Your task to perform on an android device: See recent photos Image 0: 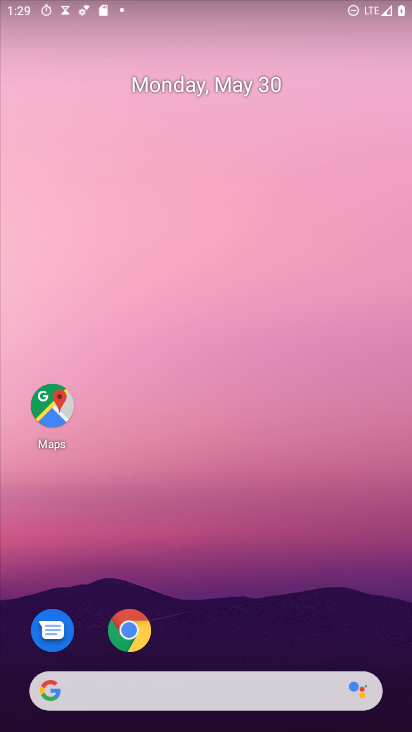
Step 0: drag from (262, 702) to (213, 167)
Your task to perform on an android device: See recent photos Image 1: 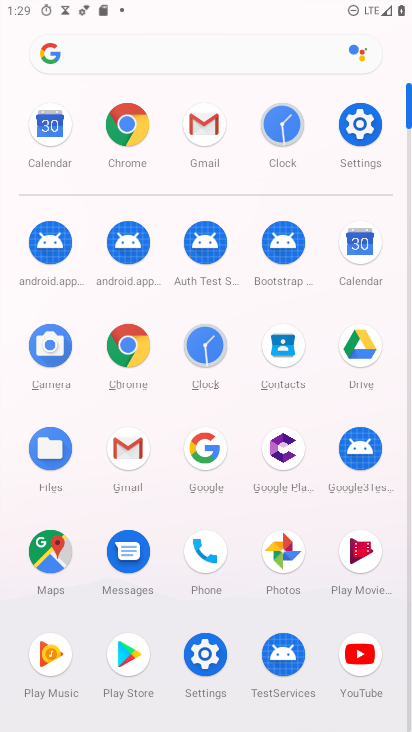
Step 1: click (271, 553)
Your task to perform on an android device: See recent photos Image 2: 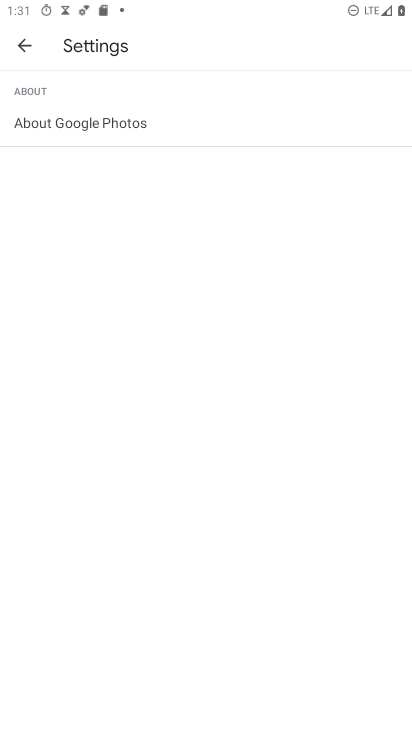
Step 2: task complete